Your task to perform on an android device: turn on showing notifications on the lock screen Image 0: 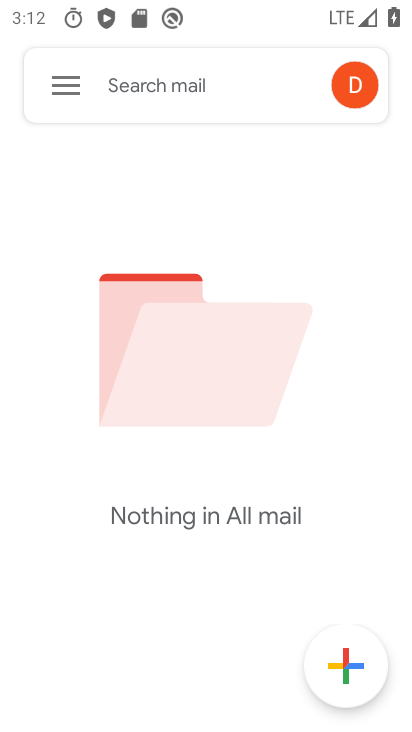
Step 0: press home button
Your task to perform on an android device: turn on showing notifications on the lock screen Image 1: 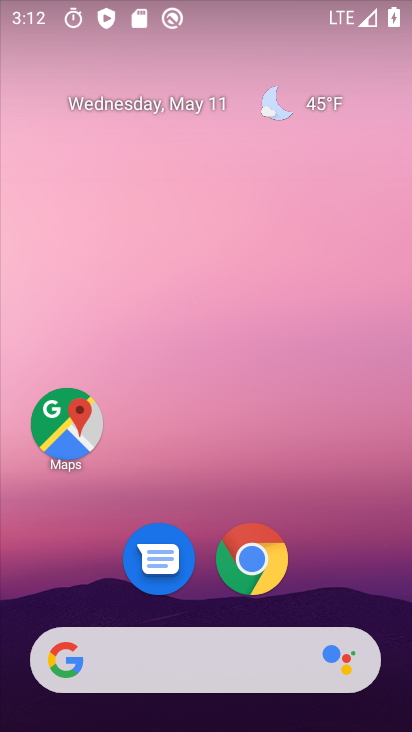
Step 1: drag from (317, 439) to (156, 15)
Your task to perform on an android device: turn on showing notifications on the lock screen Image 2: 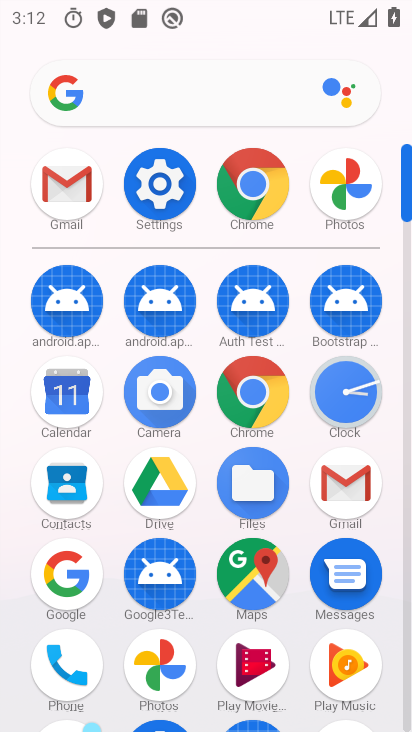
Step 2: click (171, 179)
Your task to perform on an android device: turn on showing notifications on the lock screen Image 3: 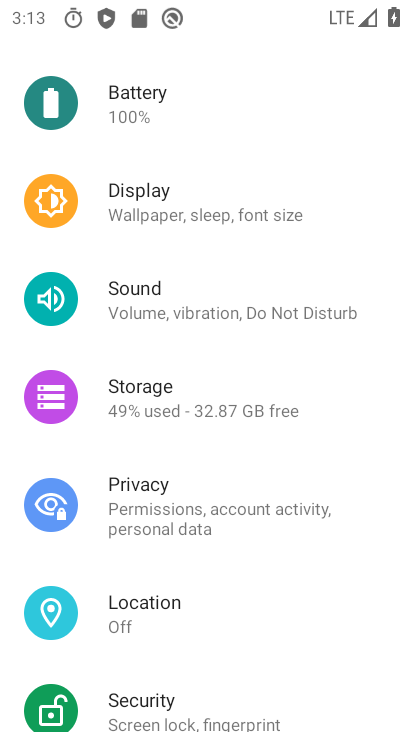
Step 3: drag from (252, 157) to (191, 624)
Your task to perform on an android device: turn on showing notifications on the lock screen Image 4: 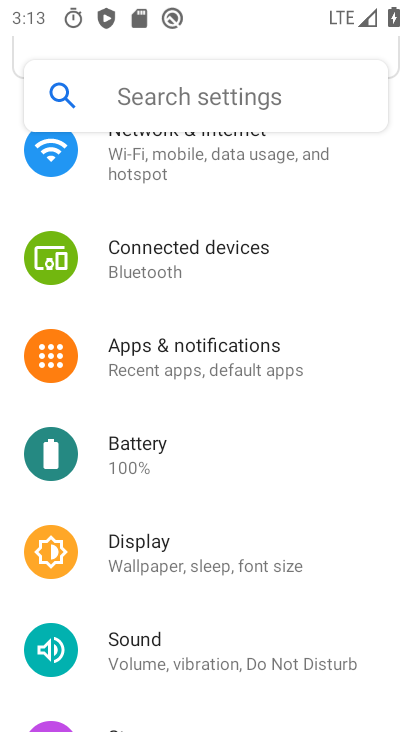
Step 4: click (193, 352)
Your task to perform on an android device: turn on showing notifications on the lock screen Image 5: 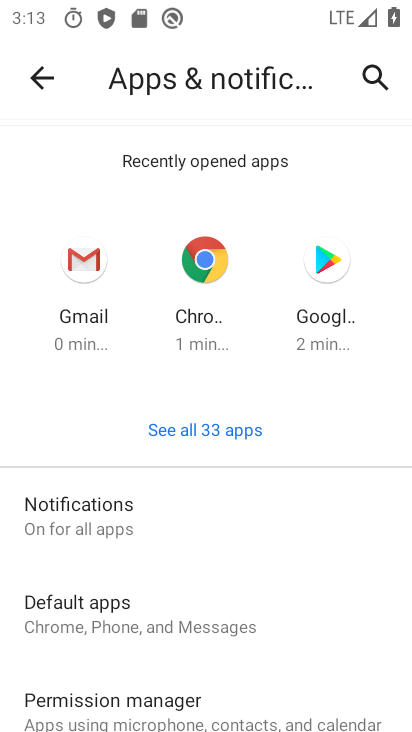
Step 5: click (183, 503)
Your task to perform on an android device: turn on showing notifications on the lock screen Image 6: 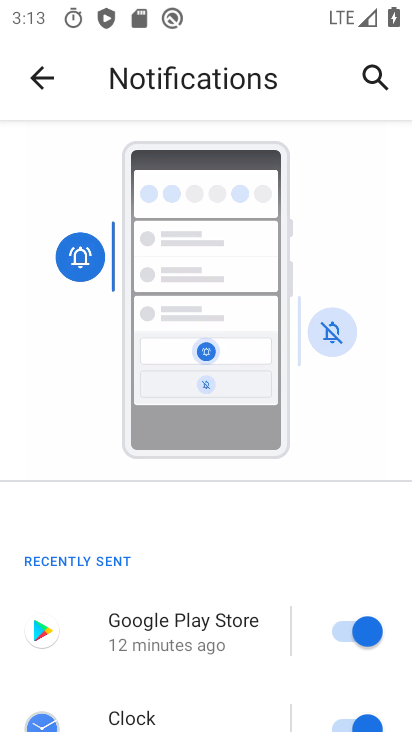
Step 6: drag from (190, 665) to (200, 245)
Your task to perform on an android device: turn on showing notifications on the lock screen Image 7: 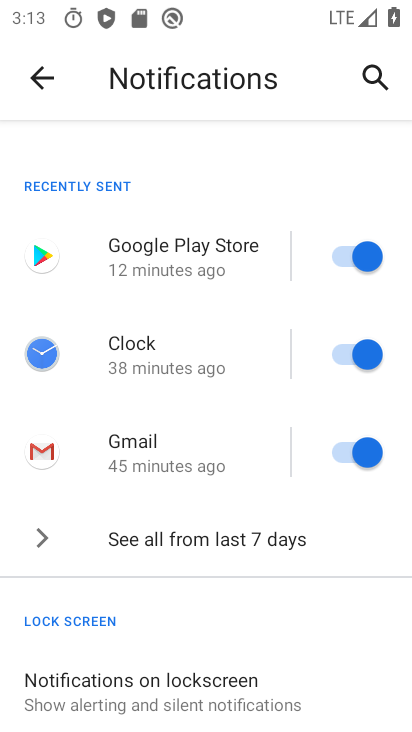
Step 7: click (222, 688)
Your task to perform on an android device: turn on showing notifications on the lock screen Image 8: 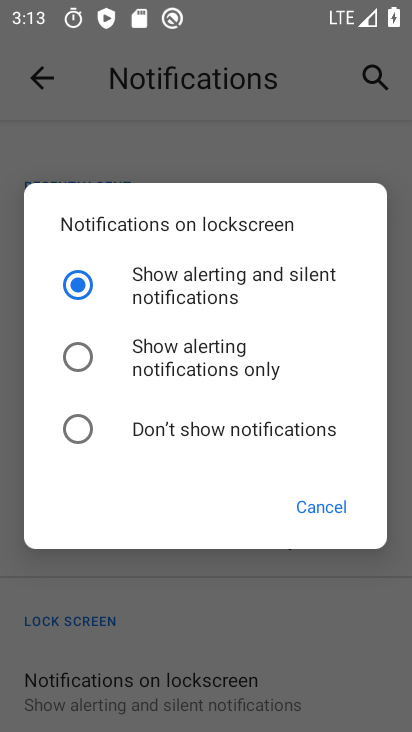
Step 8: task complete